Your task to perform on an android device: add a label to a message in the gmail app Image 0: 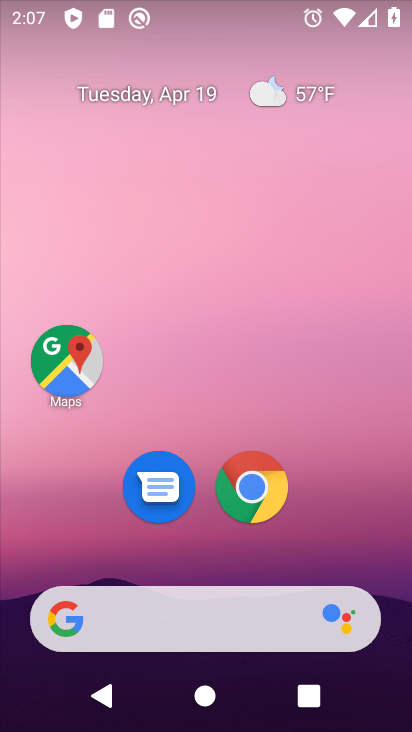
Step 0: drag from (389, 518) to (323, 125)
Your task to perform on an android device: add a label to a message in the gmail app Image 1: 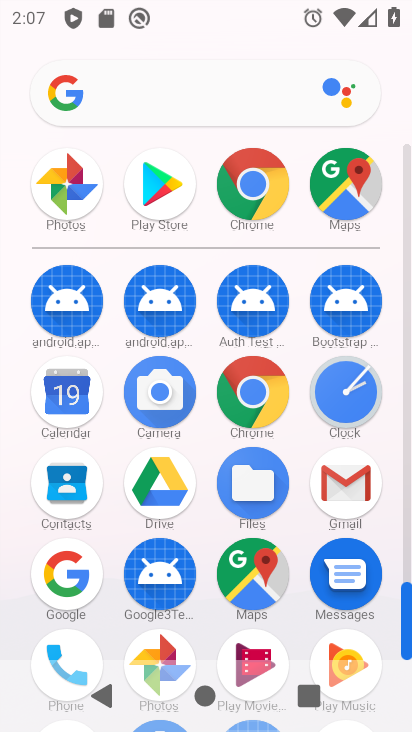
Step 1: drag from (300, 515) to (307, 240)
Your task to perform on an android device: add a label to a message in the gmail app Image 2: 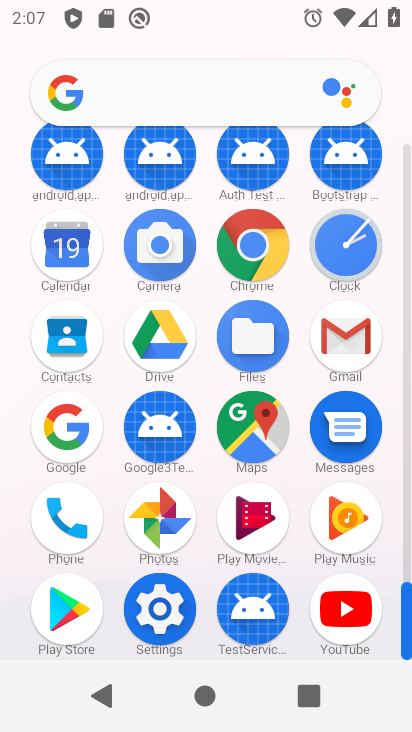
Step 2: click (364, 328)
Your task to perform on an android device: add a label to a message in the gmail app Image 3: 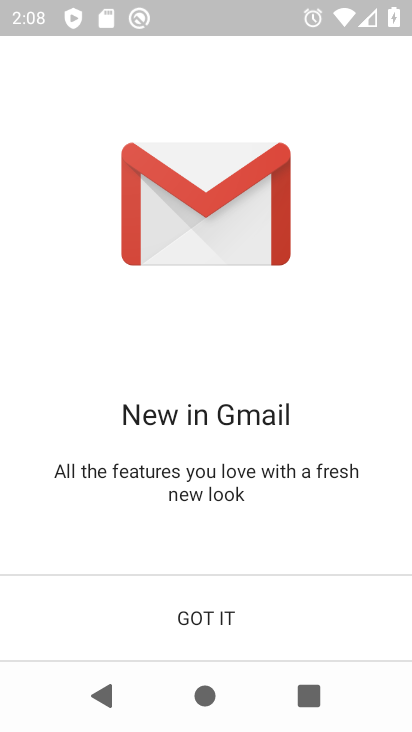
Step 3: click (200, 621)
Your task to perform on an android device: add a label to a message in the gmail app Image 4: 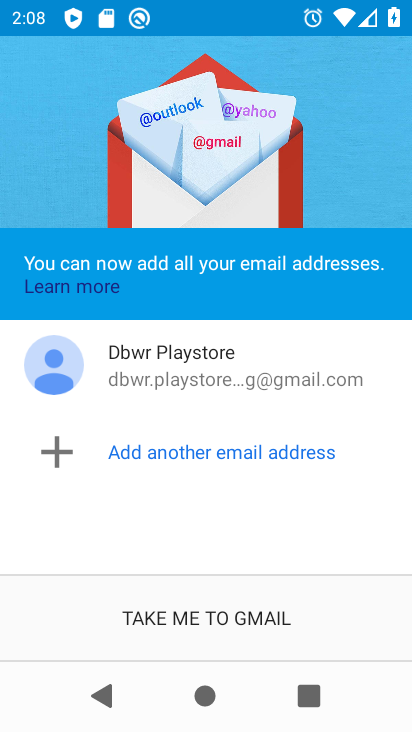
Step 4: click (230, 615)
Your task to perform on an android device: add a label to a message in the gmail app Image 5: 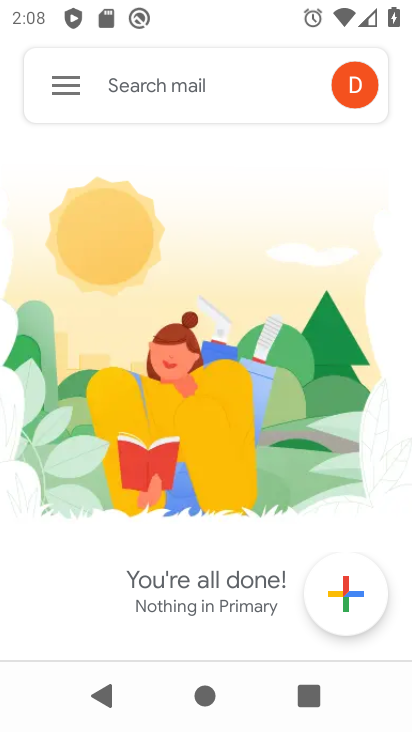
Step 5: click (72, 84)
Your task to perform on an android device: add a label to a message in the gmail app Image 6: 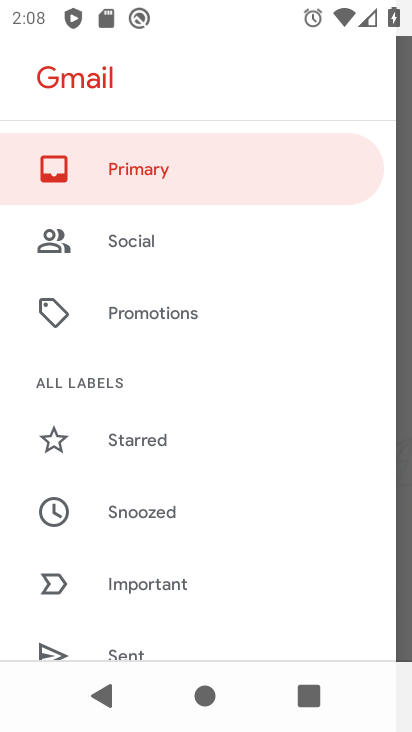
Step 6: drag from (258, 588) to (295, 197)
Your task to perform on an android device: add a label to a message in the gmail app Image 7: 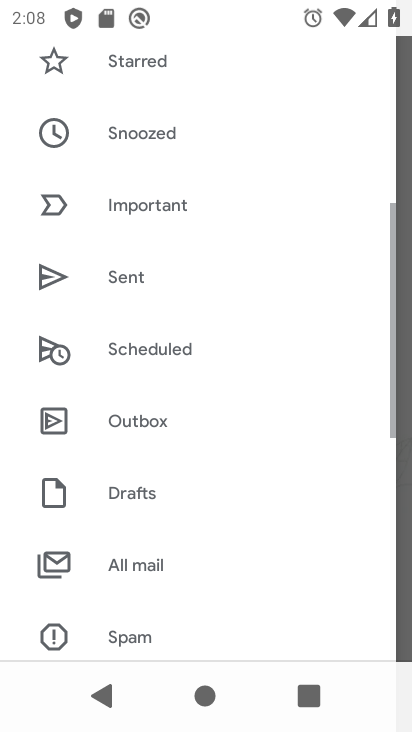
Step 7: drag from (243, 604) to (256, 264)
Your task to perform on an android device: add a label to a message in the gmail app Image 8: 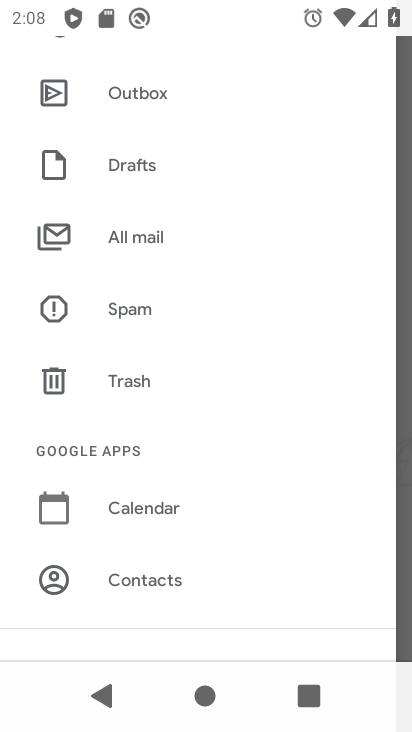
Step 8: click (145, 247)
Your task to perform on an android device: add a label to a message in the gmail app Image 9: 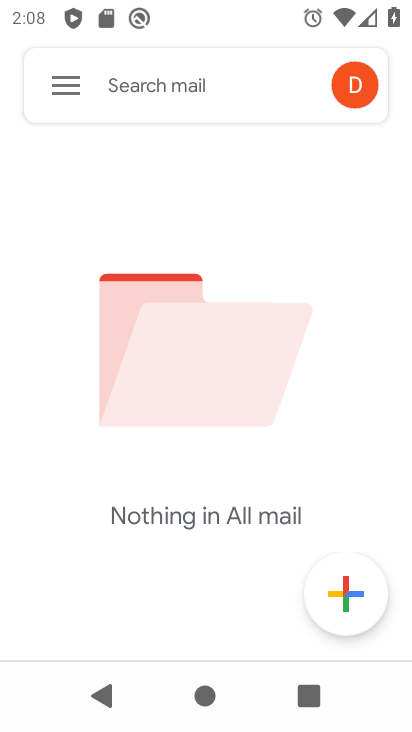
Step 9: task complete